Your task to perform on an android device: check out phone information Image 0: 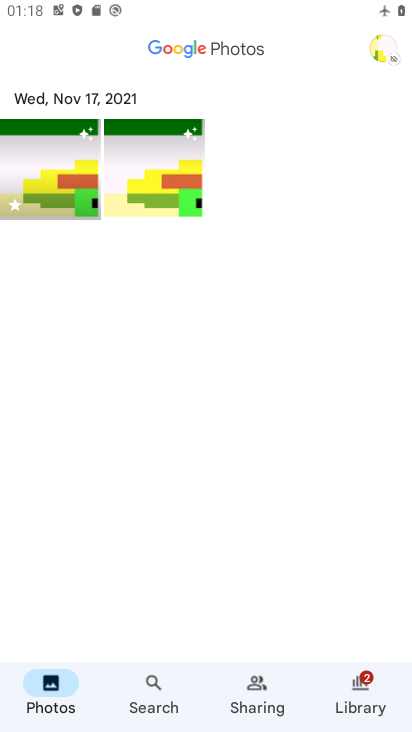
Step 0: press home button
Your task to perform on an android device: check out phone information Image 1: 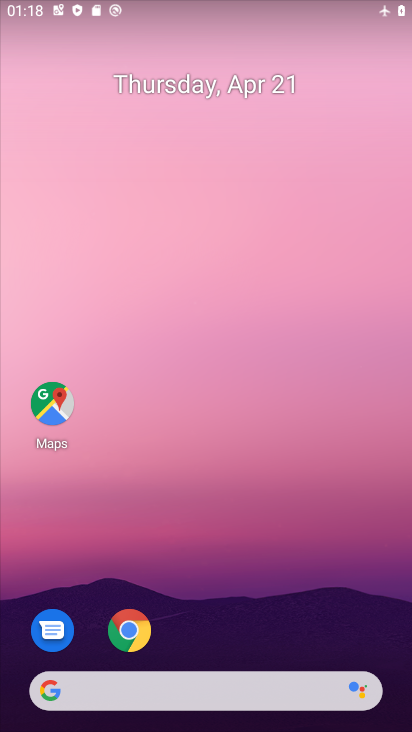
Step 1: drag from (208, 639) to (229, 121)
Your task to perform on an android device: check out phone information Image 2: 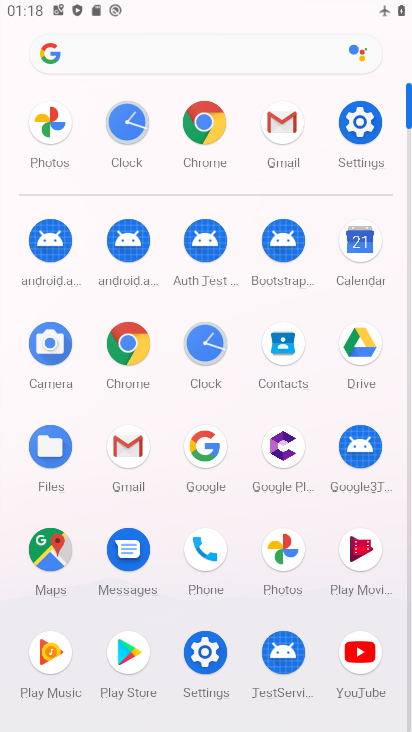
Step 2: click (367, 123)
Your task to perform on an android device: check out phone information Image 3: 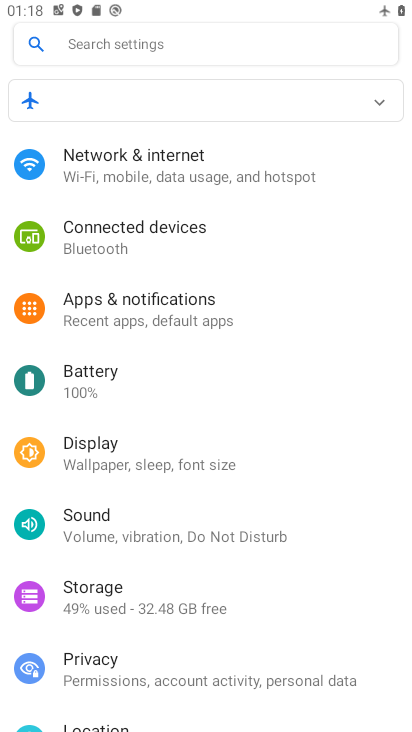
Step 3: drag from (190, 676) to (255, 223)
Your task to perform on an android device: check out phone information Image 4: 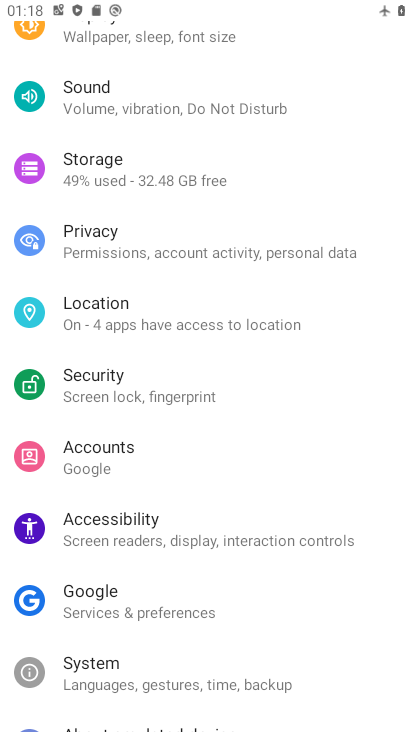
Step 4: drag from (238, 658) to (301, 150)
Your task to perform on an android device: check out phone information Image 5: 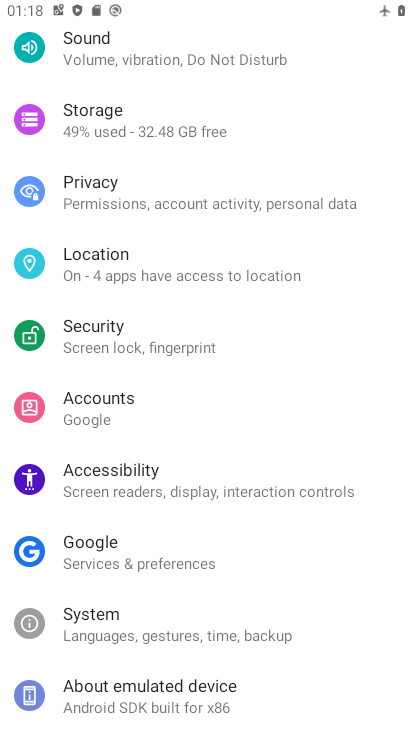
Step 5: click (169, 712)
Your task to perform on an android device: check out phone information Image 6: 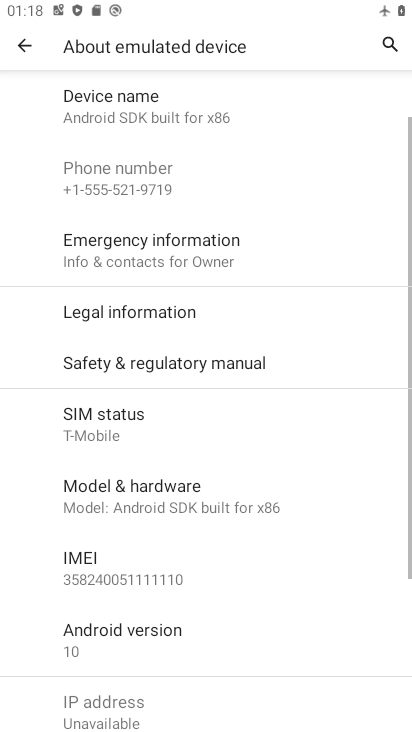
Step 6: task complete